Your task to perform on an android device: change the upload size in google photos Image 0: 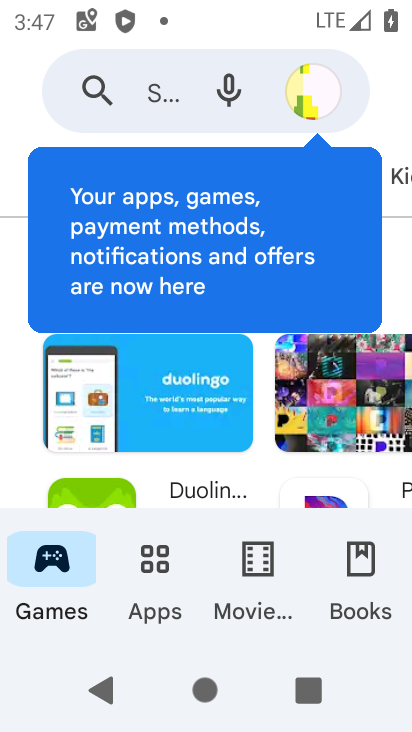
Step 0: press home button
Your task to perform on an android device: change the upload size in google photos Image 1: 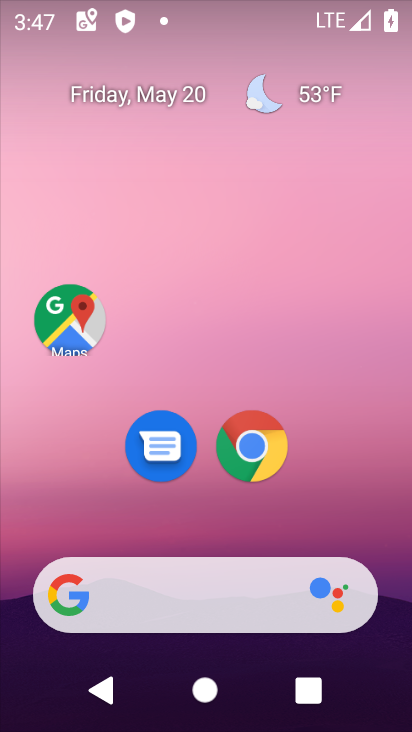
Step 1: drag from (330, 513) to (370, 68)
Your task to perform on an android device: change the upload size in google photos Image 2: 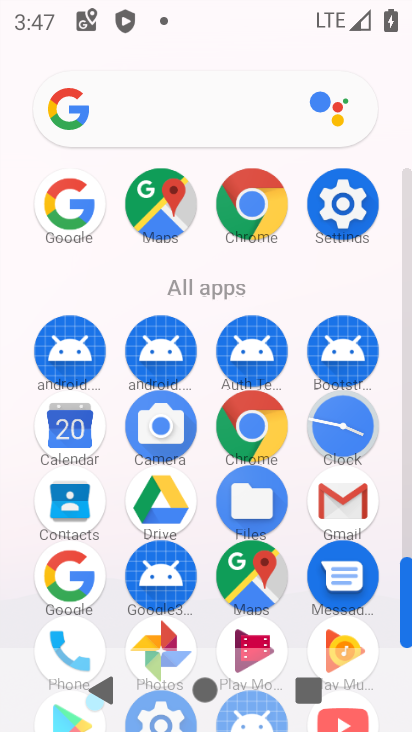
Step 2: drag from (392, 514) to (378, 53)
Your task to perform on an android device: change the upload size in google photos Image 3: 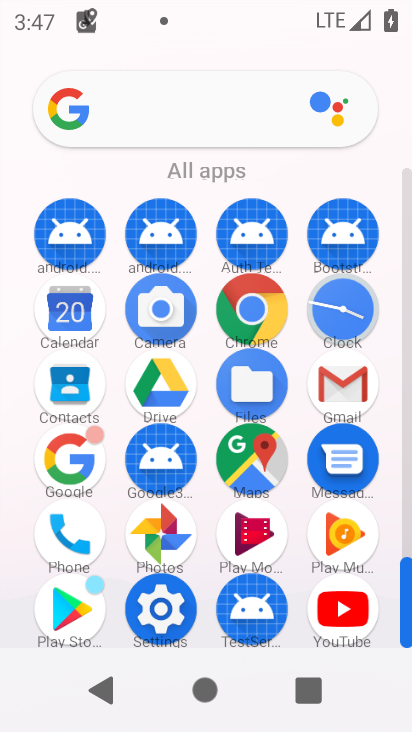
Step 3: click (167, 533)
Your task to perform on an android device: change the upload size in google photos Image 4: 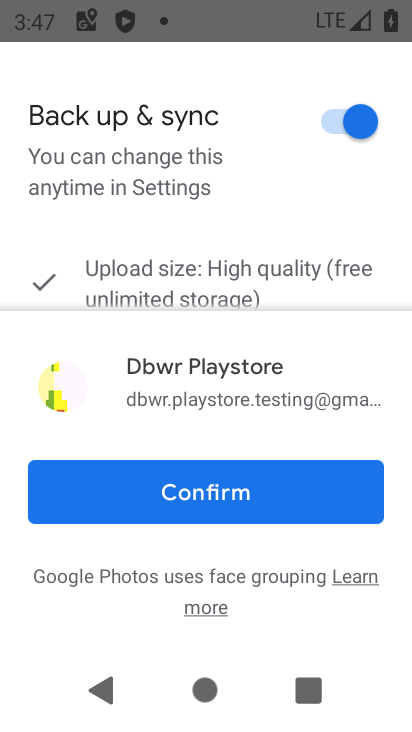
Step 4: click (162, 505)
Your task to perform on an android device: change the upload size in google photos Image 5: 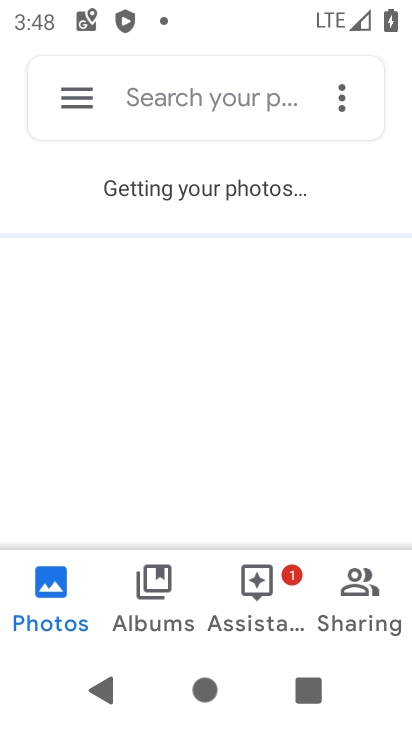
Step 5: click (98, 112)
Your task to perform on an android device: change the upload size in google photos Image 6: 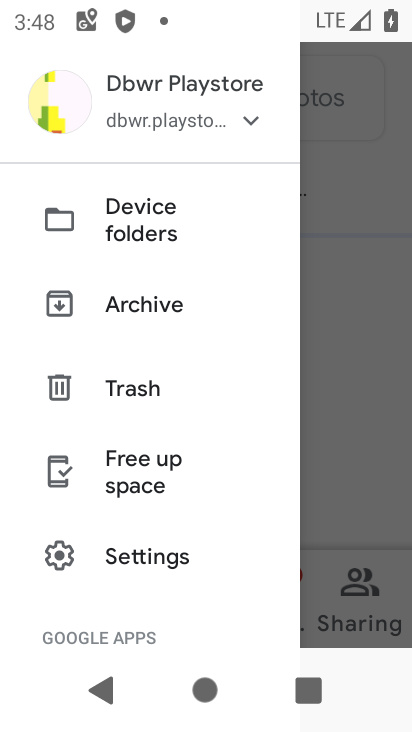
Step 6: drag from (165, 600) to (280, 143)
Your task to perform on an android device: change the upload size in google photos Image 7: 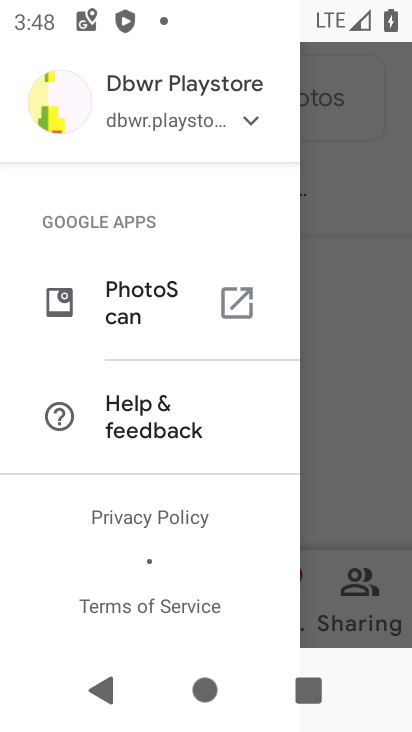
Step 7: drag from (160, 279) to (127, 581)
Your task to perform on an android device: change the upload size in google photos Image 8: 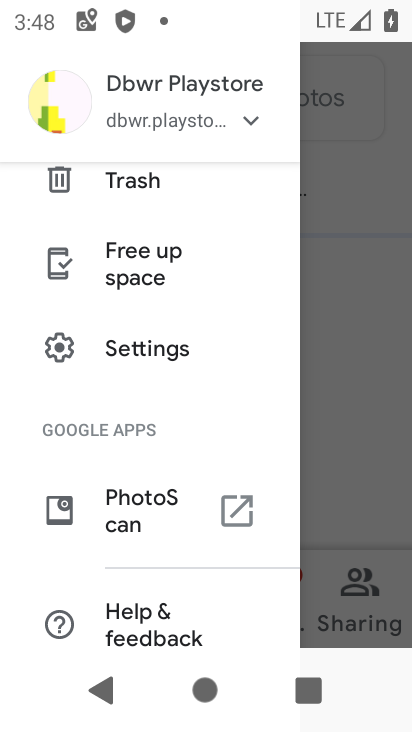
Step 8: click (166, 347)
Your task to perform on an android device: change the upload size in google photos Image 9: 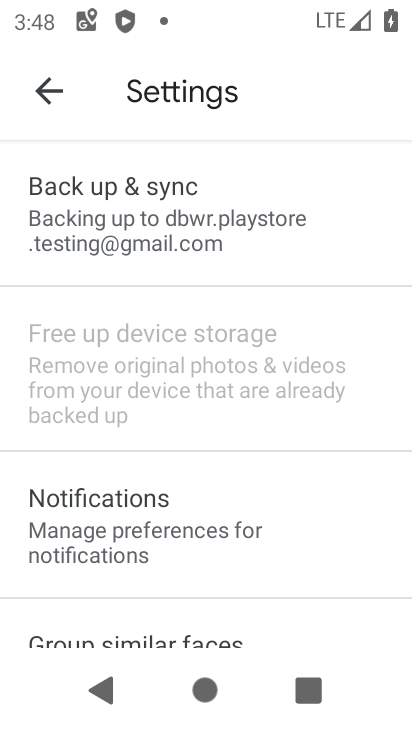
Step 9: click (111, 234)
Your task to perform on an android device: change the upload size in google photos Image 10: 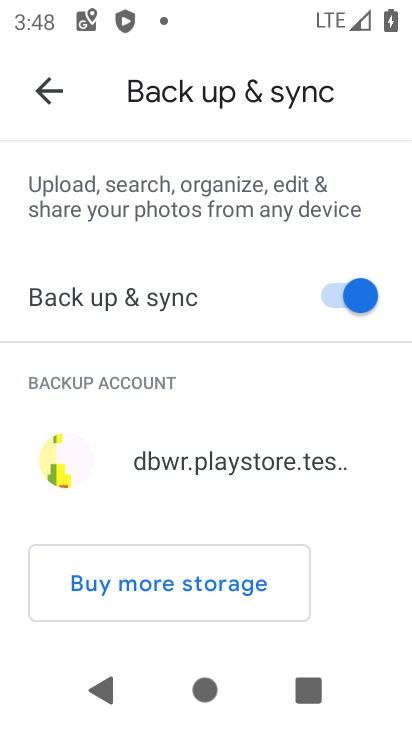
Step 10: drag from (244, 615) to (310, 205)
Your task to perform on an android device: change the upload size in google photos Image 11: 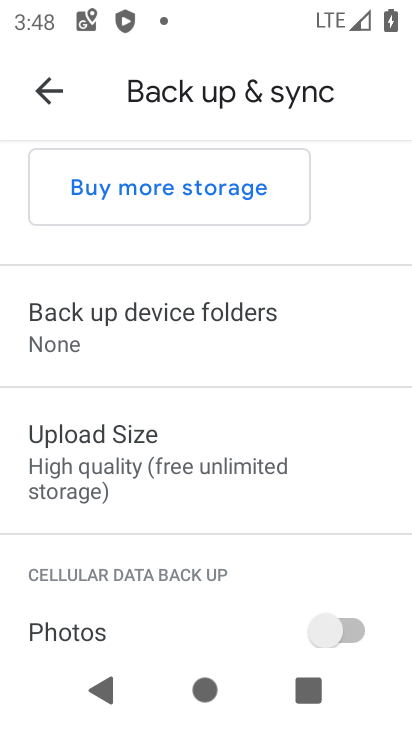
Step 11: click (122, 471)
Your task to perform on an android device: change the upload size in google photos Image 12: 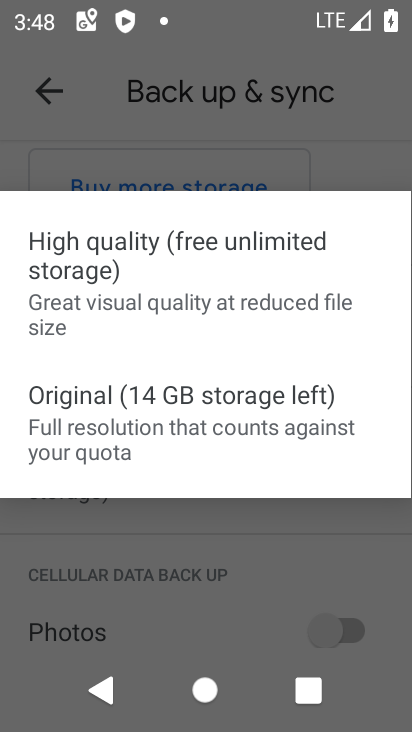
Step 12: click (120, 417)
Your task to perform on an android device: change the upload size in google photos Image 13: 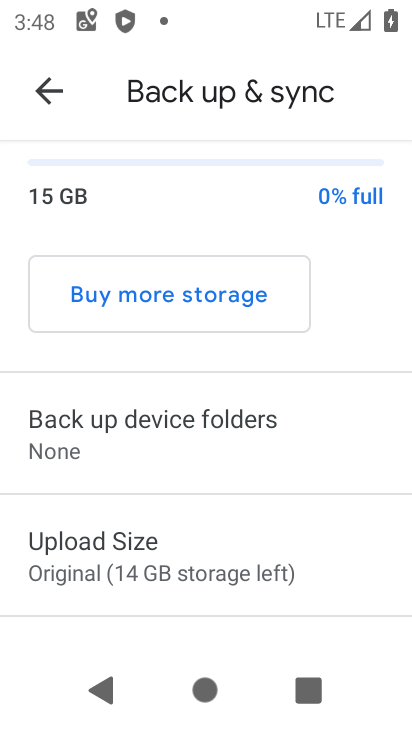
Step 13: task complete